Your task to perform on an android device: turn off translation in the chrome app Image 0: 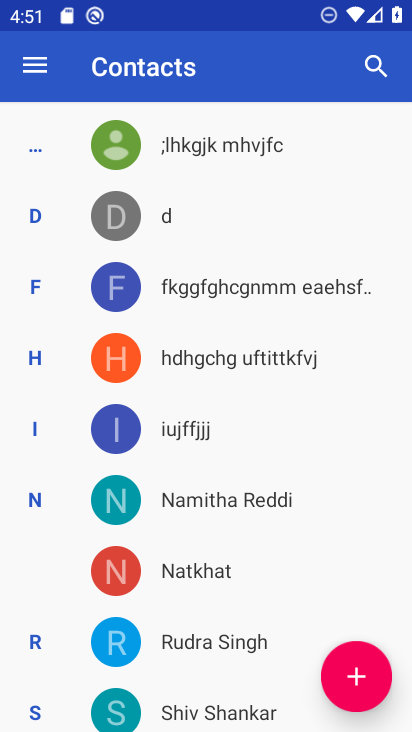
Step 0: press home button
Your task to perform on an android device: turn off translation in the chrome app Image 1: 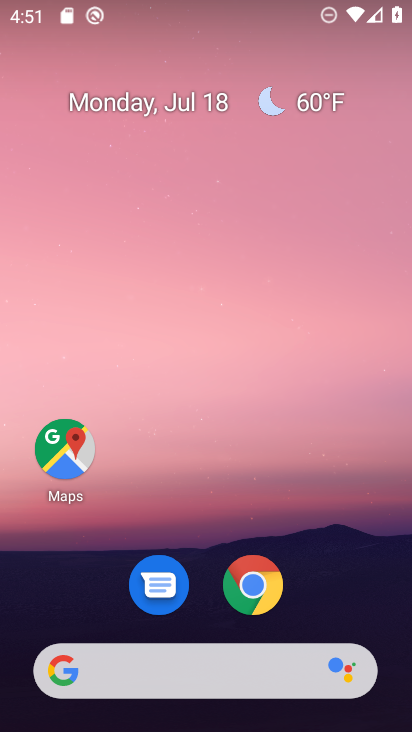
Step 1: click (274, 599)
Your task to perform on an android device: turn off translation in the chrome app Image 2: 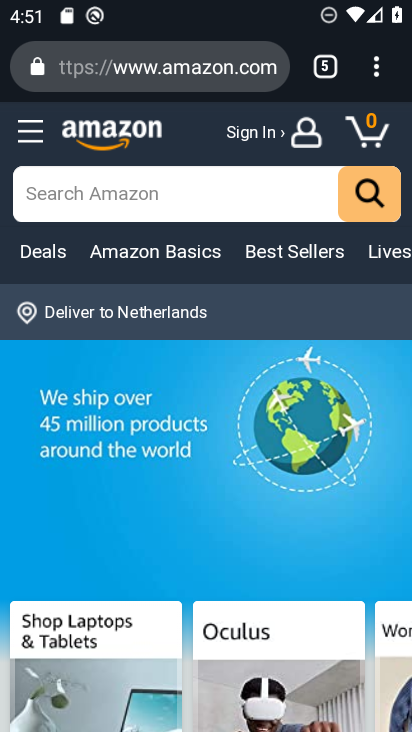
Step 2: click (375, 60)
Your task to perform on an android device: turn off translation in the chrome app Image 3: 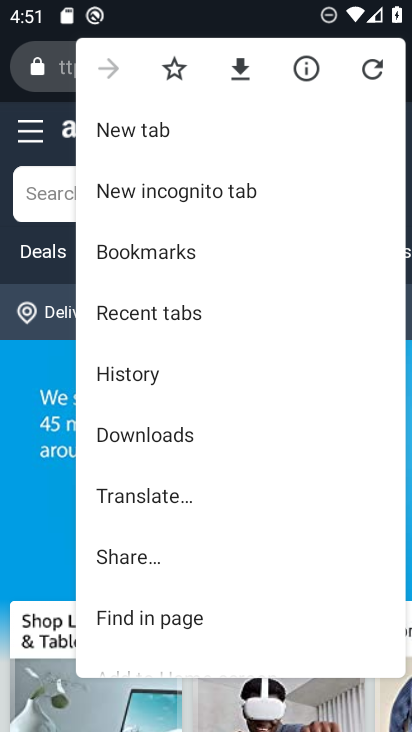
Step 3: drag from (287, 563) to (366, 255)
Your task to perform on an android device: turn off translation in the chrome app Image 4: 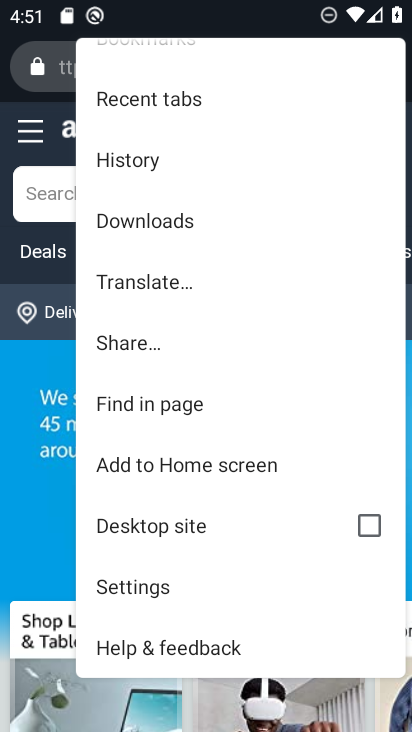
Step 4: click (141, 589)
Your task to perform on an android device: turn off translation in the chrome app Image 5: 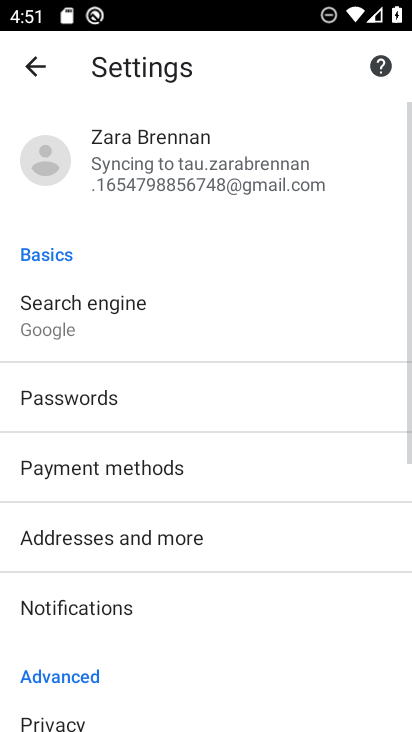
Step 5: drag from (299, 408) to (326, 100)
Your task to perform on an android device: turn off translation in the chrome app Image 6: 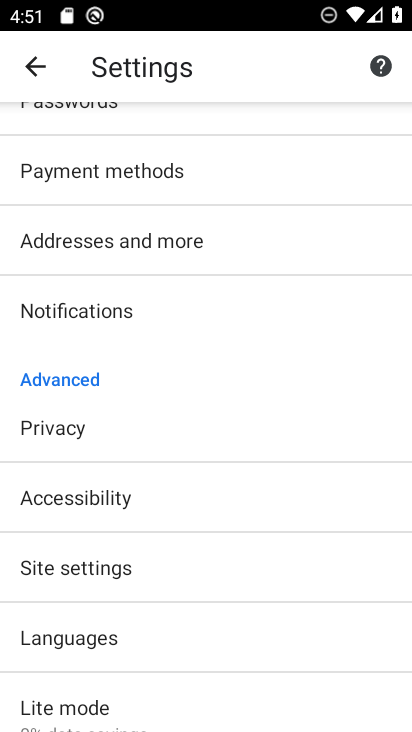
Step 6: click (187, 648)
Your task to perform on an android device: turn off translation in the chrome app Image 7: 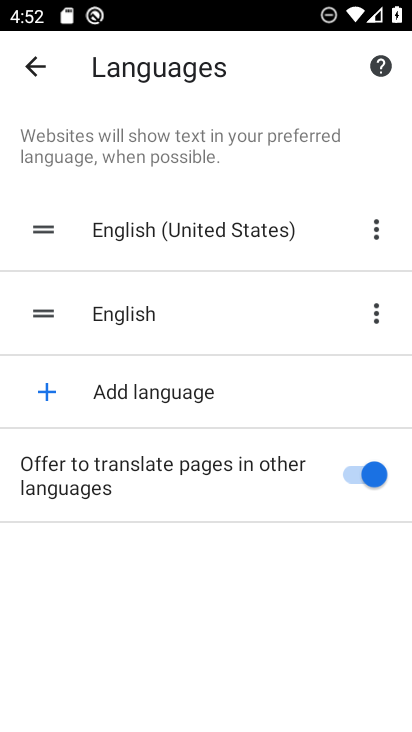
Step 7: click (367, 475)
Your task to perform on an android device: turn off translation in the chrome app Image 8: 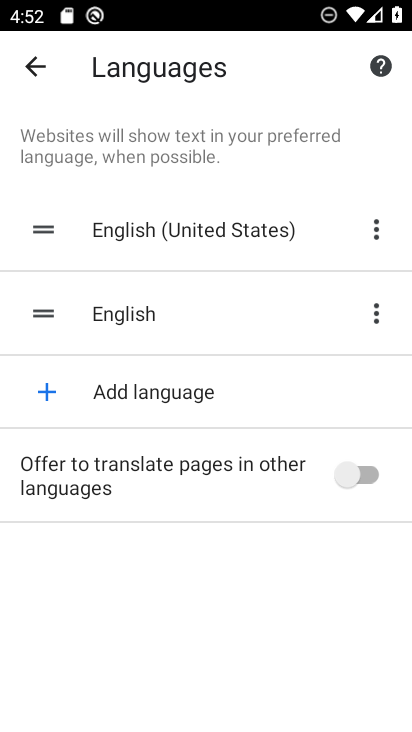
Step 8: task complete